Your task to perform on an android device: Do I have any events today? Image 0: 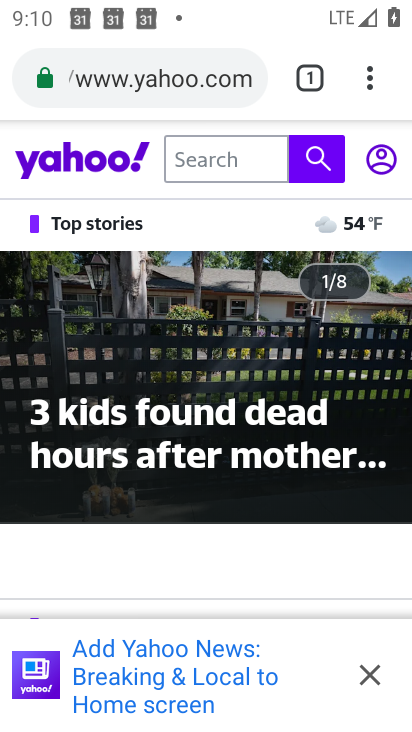
Step 0: press back button
Your task to perform on an android device: Do I have any events today? Image 1: 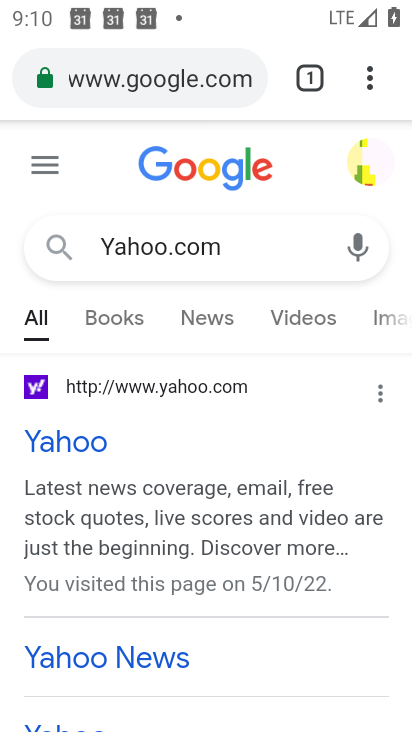
Step 1: press back button
Your task to perform on an android device: Do I have any events today? Image 2: 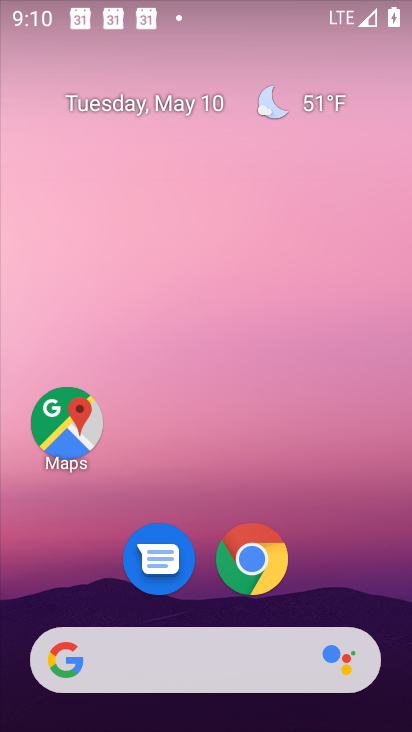
Step 2: drag from (322, 529) to (225, 35)
Your task to perform on an android device: Do I have any events today? Image 3: 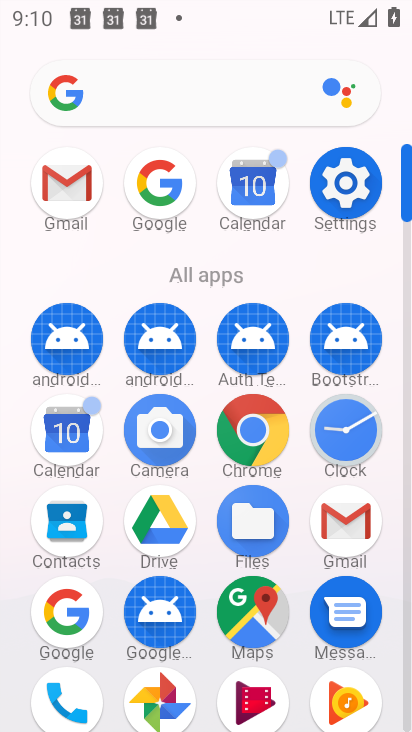
Step 3: click (71, 432)
Your task to perform on an android device: Do I have any events today? Image 4: 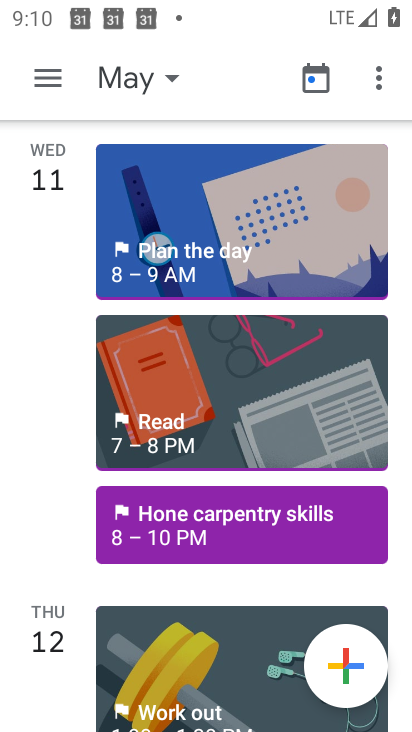
Step 4: click (170, 80)
Your task to perform on an android device: Do I have any events today? Image 5: 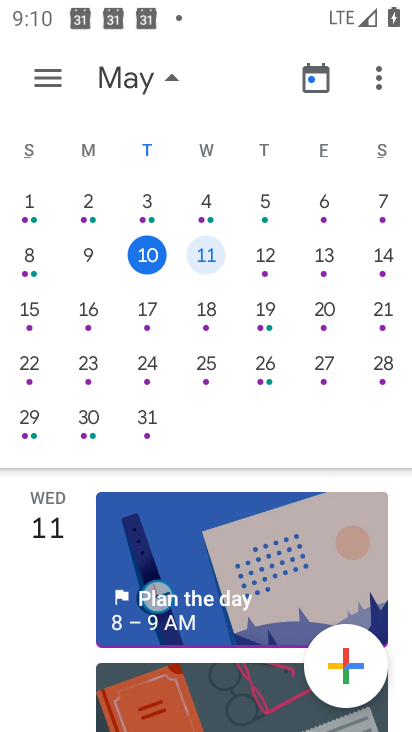
Step 5: click (149, 258)
Your task to perform on an android device: Do I have any events today? Image 6: 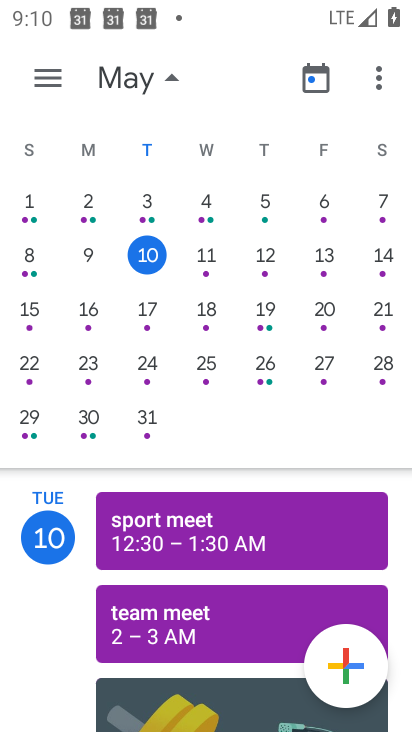
Step 6: click (208, 517)
Your task to perform on an android device: Do I have any events today? Image 7: 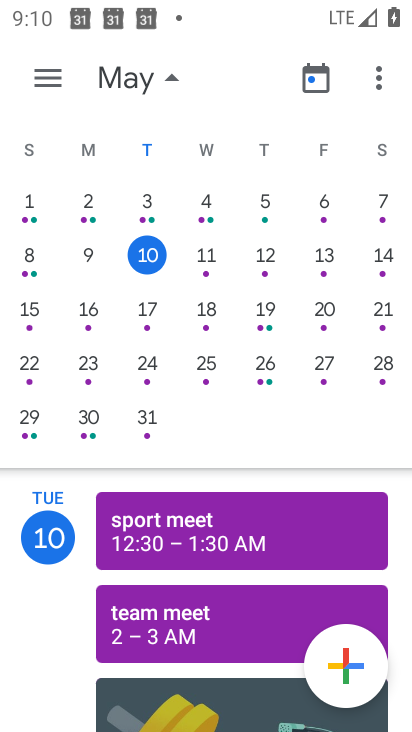
Step 7: click (208, 517)
Your task to perform on an android device: Do I have any events today? Image 8: 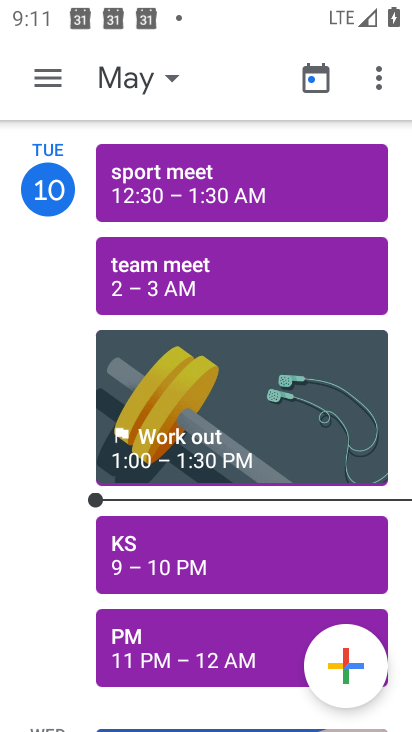
Step 8: task complete